Your task to perform on an android device: Open Google Chrome and click the shortcut for Amazon.com Image 0: 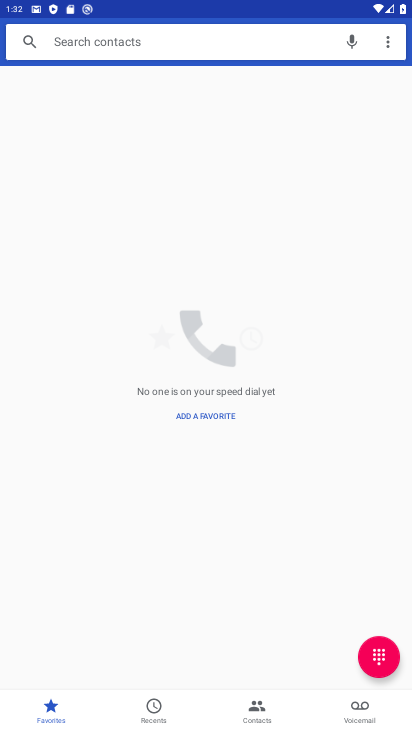
Step 0: press back button
Your task to perform on an android device: Open Google Chrome and click the shortcut for Amazon.com Image 1: 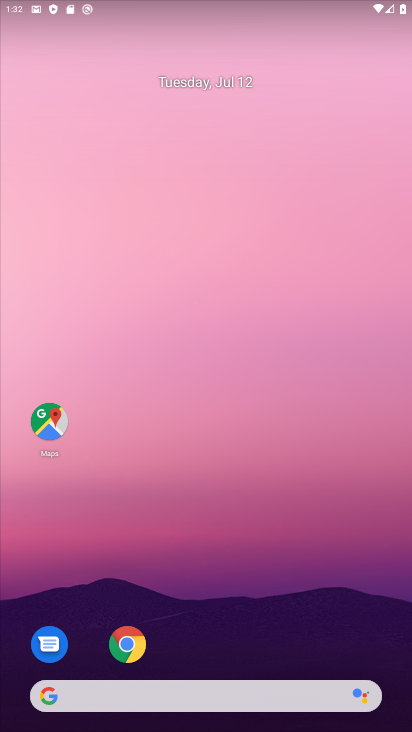
Step 1: click (134, 642)
Your task to perform on an android device: Open Google Chrome and click the shortcut for Amazon.com Image 2: 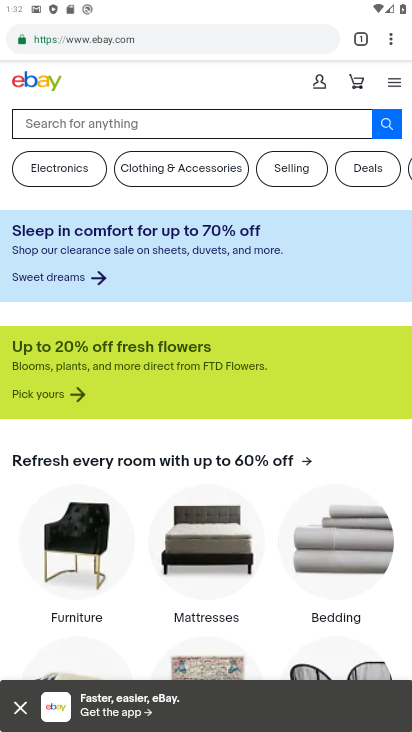
Step 2: click (363, 35)
Your task to perform on an android device: Open Google Chrome and click the shortcut for Amazon.com Image 3: 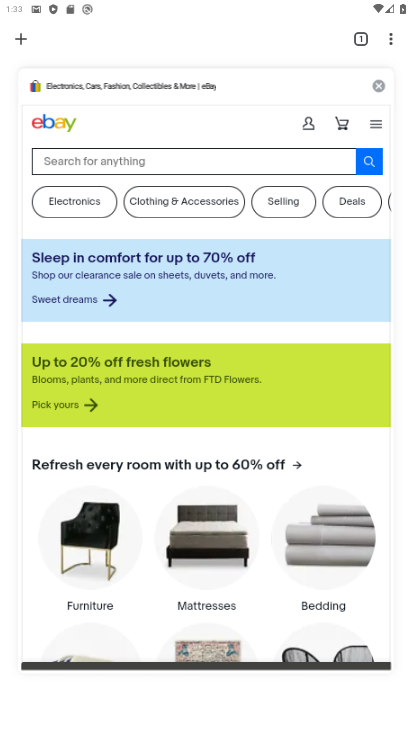
Step 3: click (19, 35)
Your task to perform on an android device: Open Google Chrome and click the shortcut for Amazon.com Image 4: 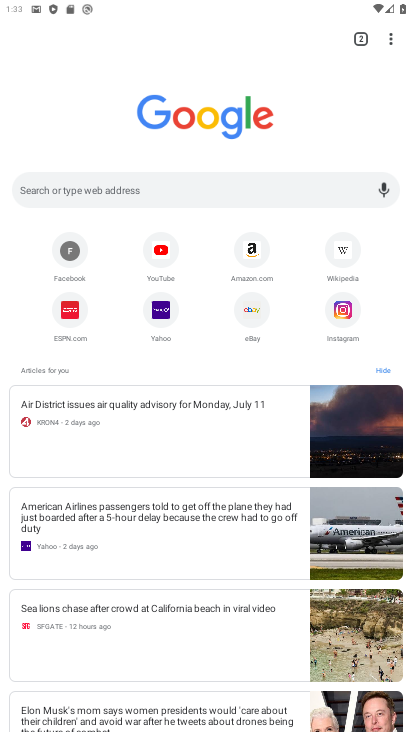
Step 4: click (263, 251)
Your task to perform on an android device: Open Google Chrome and click the shortcut for Amazon.com Image 5: 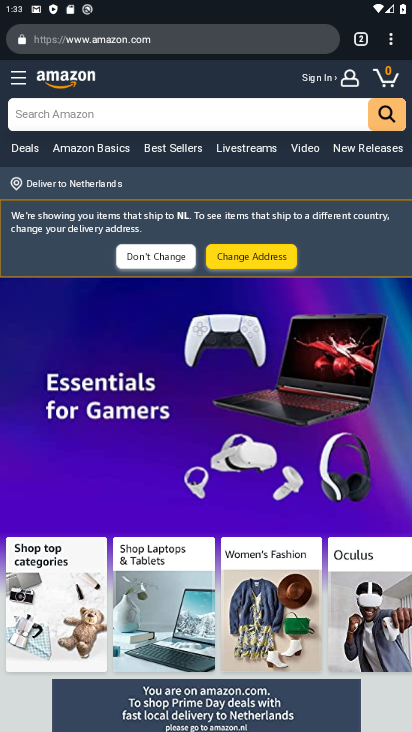
Step 5: task complete